Your task to perform on an android device: add a label to a message in the gmail app Image 0: 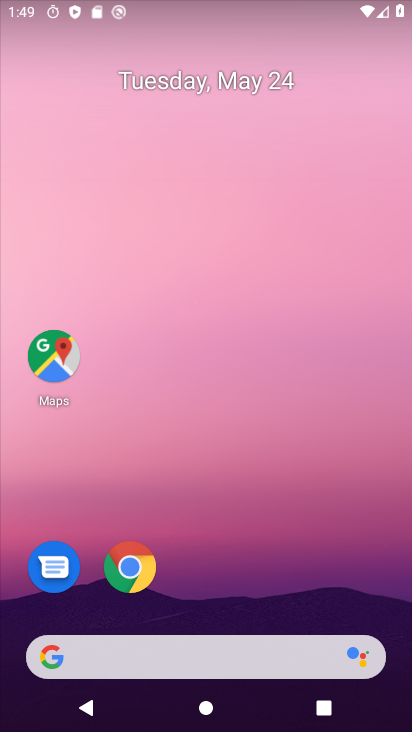
Step 0: drag from (227, 580) to (266, 3)
Your task to perform on an android device: add a label to a message in the gmail app Image 1: 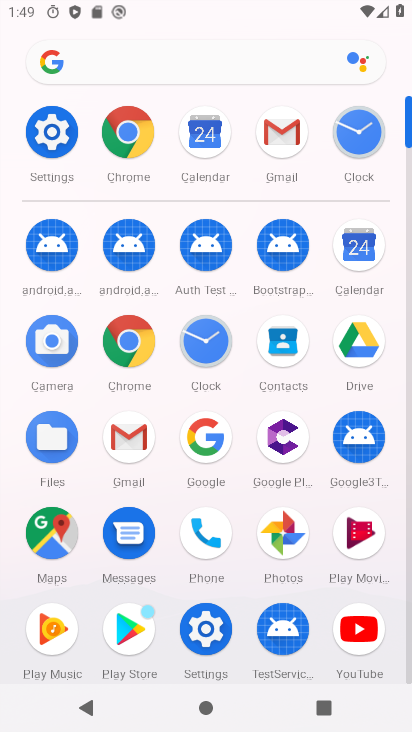
Step 1: click (143, 443)
Your task to perform on an android device: add a label to a message in the gmail app Image 2: 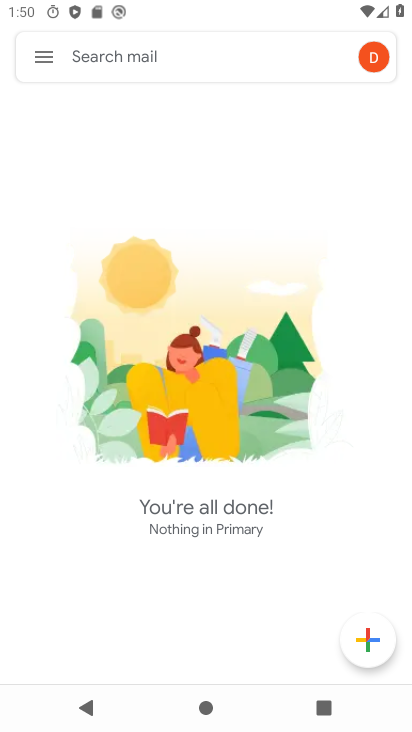
Step 2: click (42, 50)
Your task to perform on an android device: add a label to a message in the gmail app Image 3: 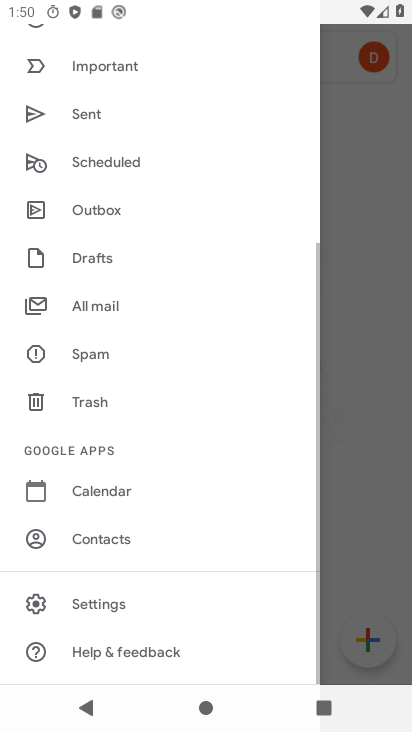
Step 3: click (101, 317)
Your task to perform on an android device: add a label to a message in the gmail app Image 4: 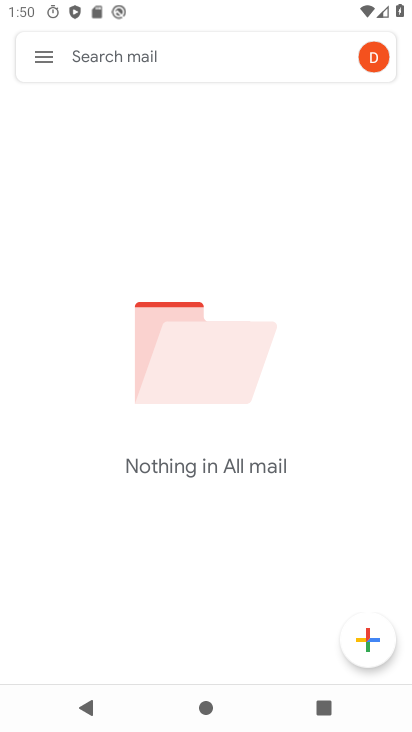
Step 4: task complete